Your task to perform on an android device: empty trash in the gmail app Image 0: 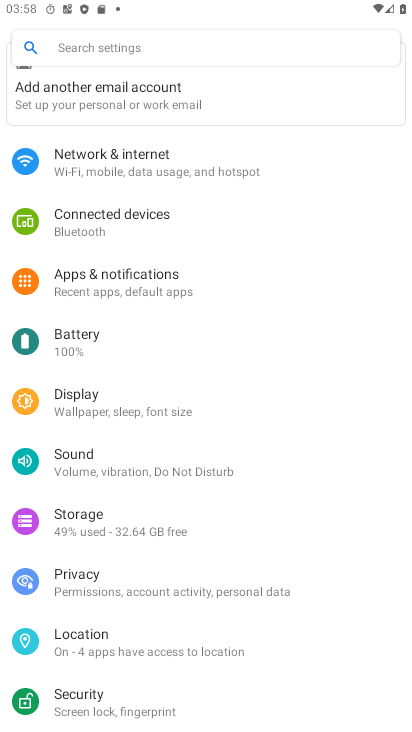
Step 0: press home button
Your task to perform on an android device: empty trash in the gmail app Image 1: 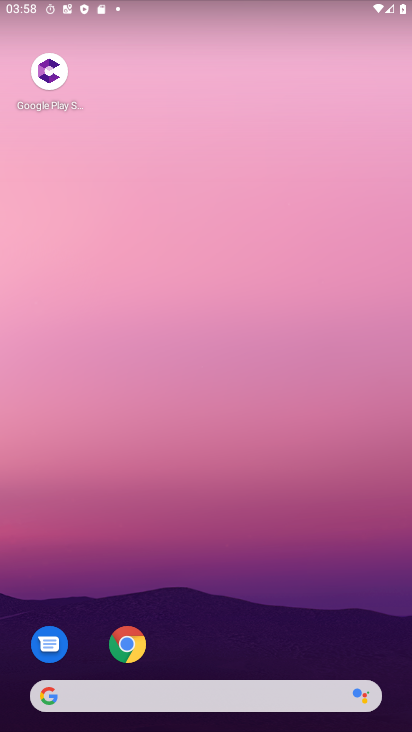
Step 1: drag from (243, 635) to (201, 13)
Your task to perform on an android device: empty trash in the gmail app Image 2: 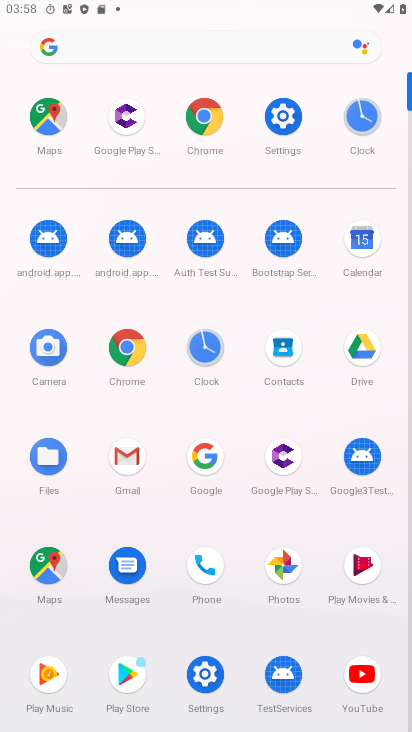
Step 2: click (125, 462)
Your task to perform on an android device: empty trash in the gmail app Image 3: 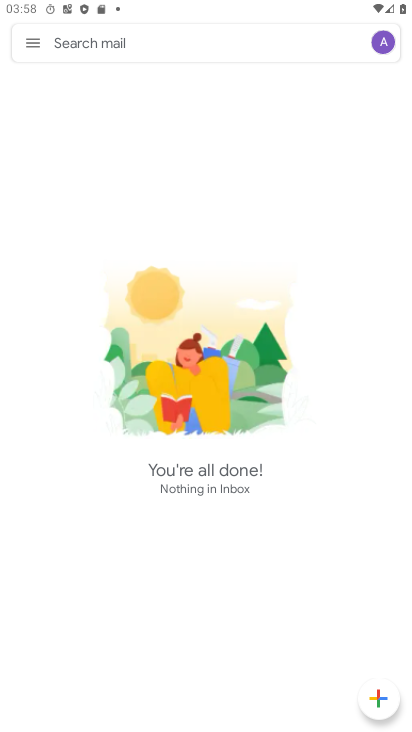
Step 3: click (25, 35)
Your task to perform on an android device: empty trash in the gmail app Image 4: 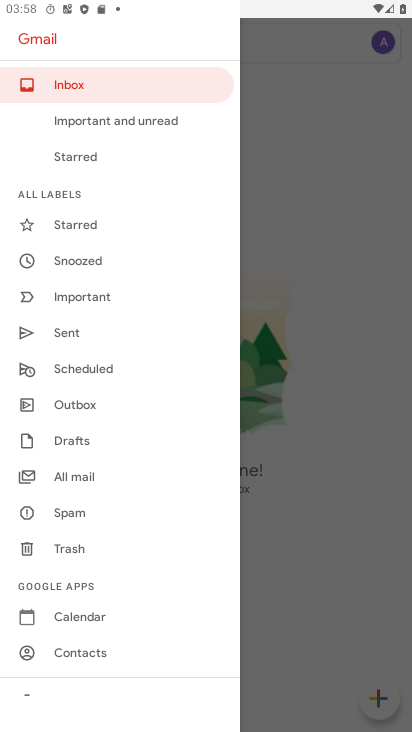
Step 4: click (73, 541)
Your task to perform on an android device: empty trash in the gmail app Image 5: 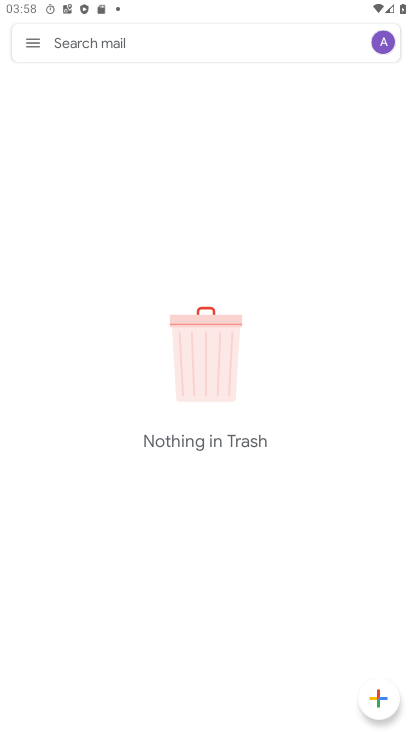
Step 5: task complete